Your task to perform on an android device: install app "AliExpress" Image 0: 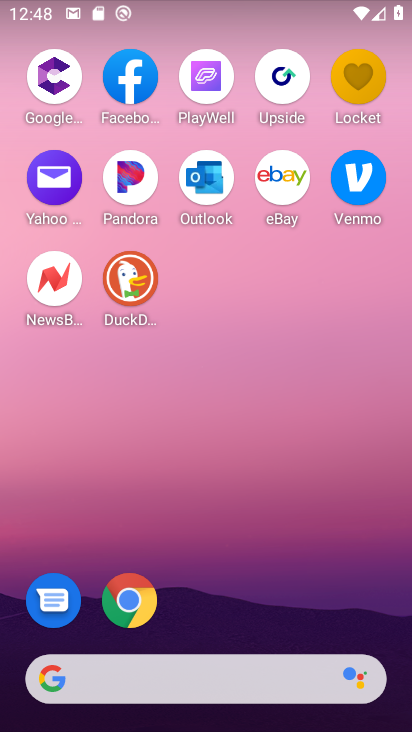
Step 0: drag from (238, 604) to (282, 117)
Your task to perform on an android device: install app "AliExpress" Image 1: 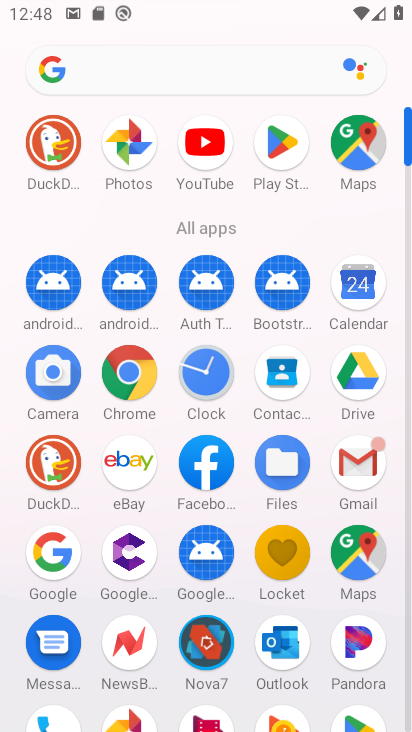
Step 1: click (273, 164)
Your task to perform on an android device: install app "AliExpress" Image 2: 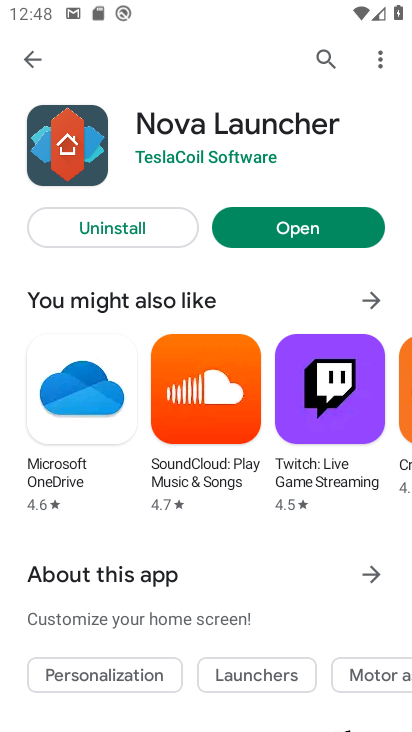
Step 2: click (308, 67)
Your task to perform on an android device: install app "AliExpress" Image 3: 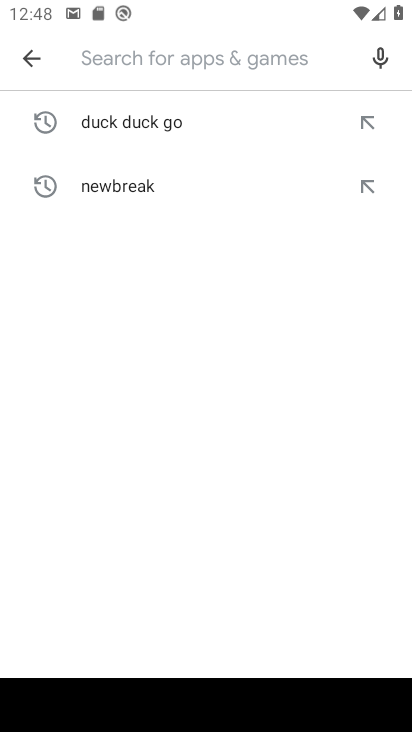
Step 3: type "aliexpress"
Your task to perform on an android device: install app "AliExpress" Image 4: 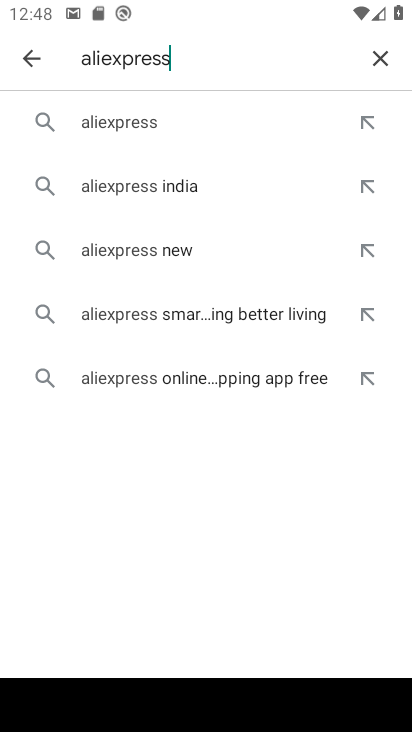
Step 4: click (227, 124)
Your task to perform on an android device: install app "AliExpress" Image 5: 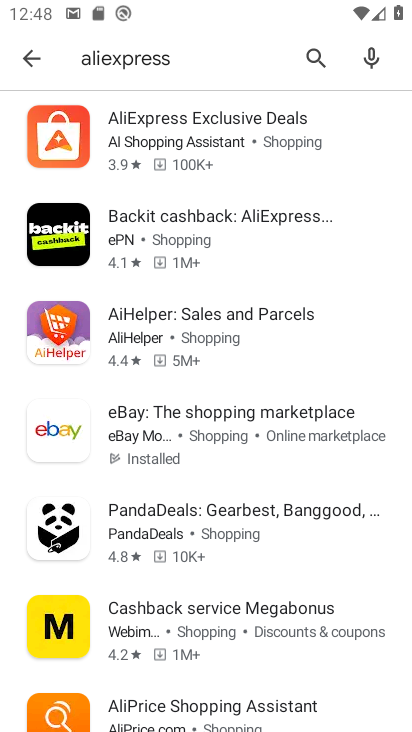
Step 5: click (310, 129)
Your task to perform on an android device: install app "AliExpress" Image 6: 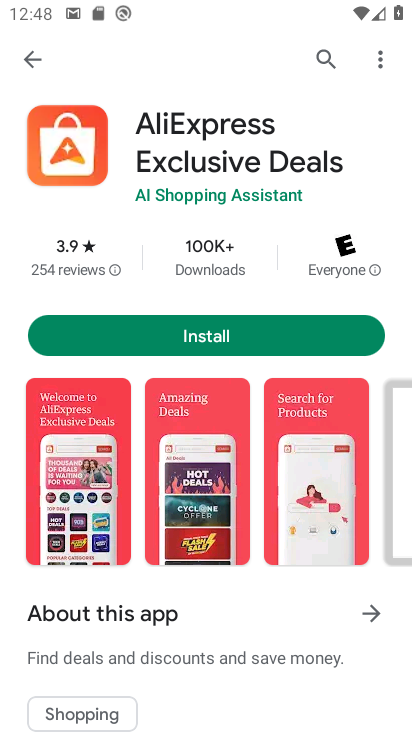
Step 6: task complete